Your task to perform on an android device: change the clock display to analog Image 0: 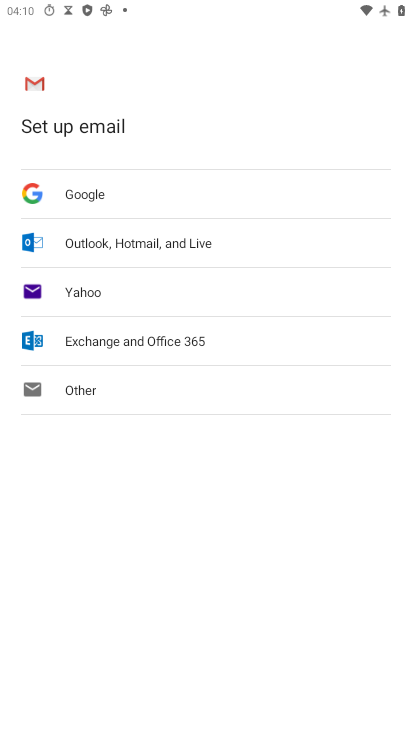
Step 0: press back button
Your task to perform on an android device: change the clock display to analog Image 1: 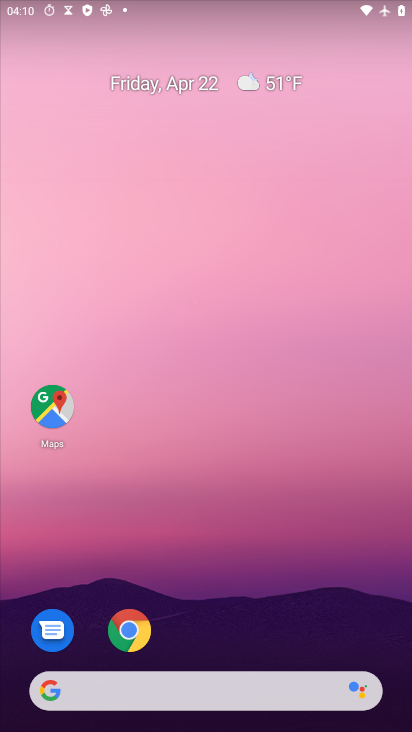
Step 1: drag from (245, 429) to (212, 58)
Your task to perform on an android device: change the clock display to analog Image 2: 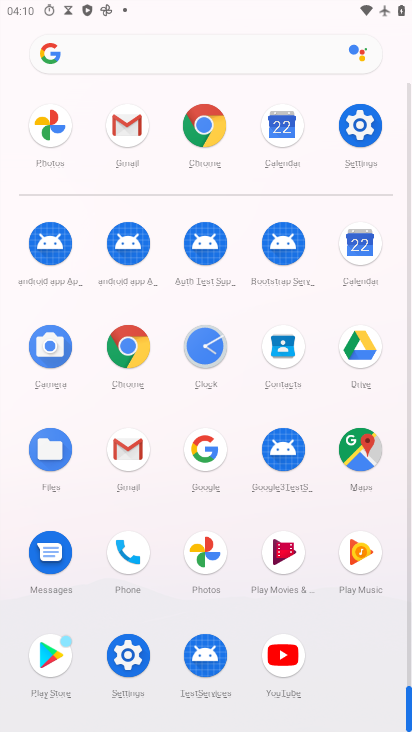
Step 2: drag from (1, 581) to (11, 308)
Your task to perform on an android device: change the clock display to analog Image 3: 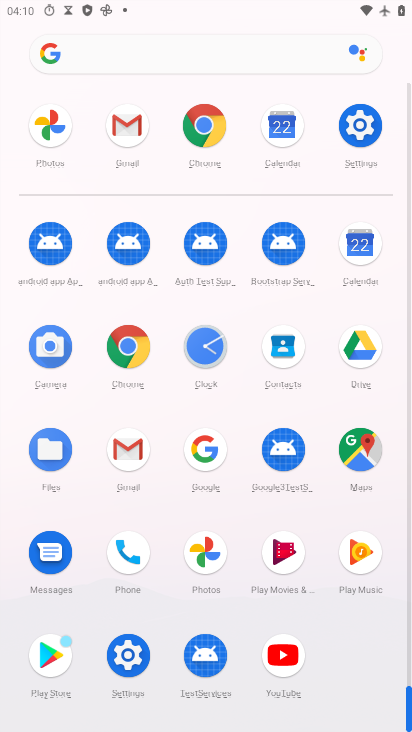
Step 3: click (206, 344)
Your task to perform on an android device: change the clock display to analog Image 4: 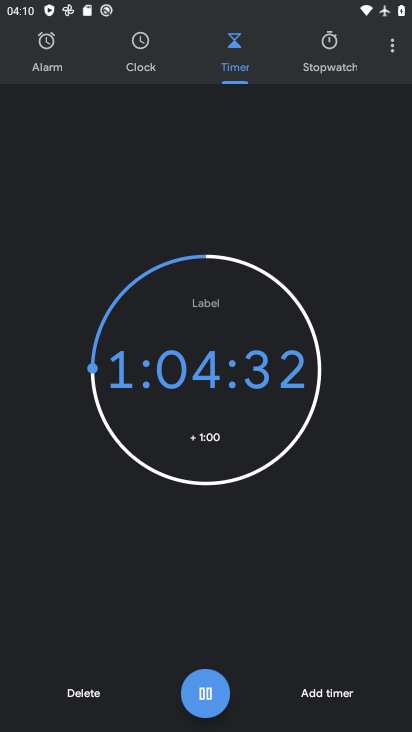
Step 4: click (385, 54)
Your task to perform on an android device: change the clock display to analog Image 5: 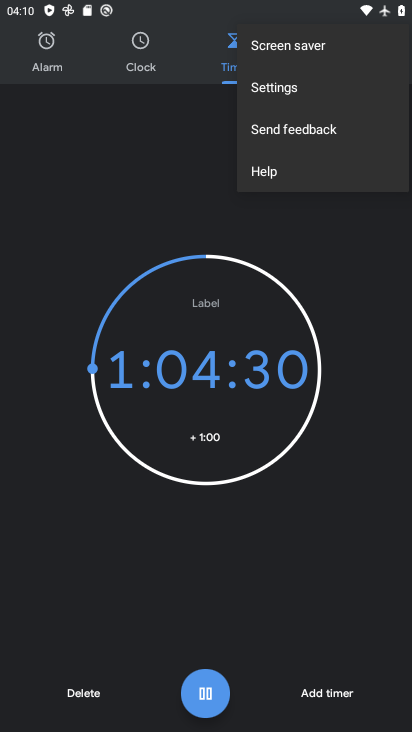
Step 5: click (307, 84)
Your task to perform on an android device: change the clock display to analog Image 6: 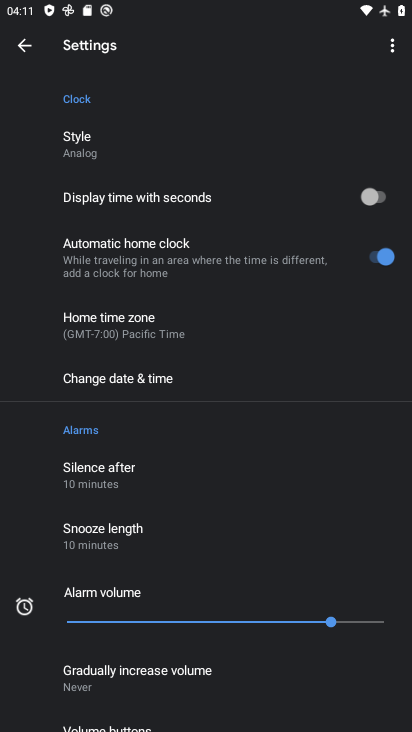
Step 6: click (122, 137)
Your task to perform on an android device: change the clock display to analog Image 7: 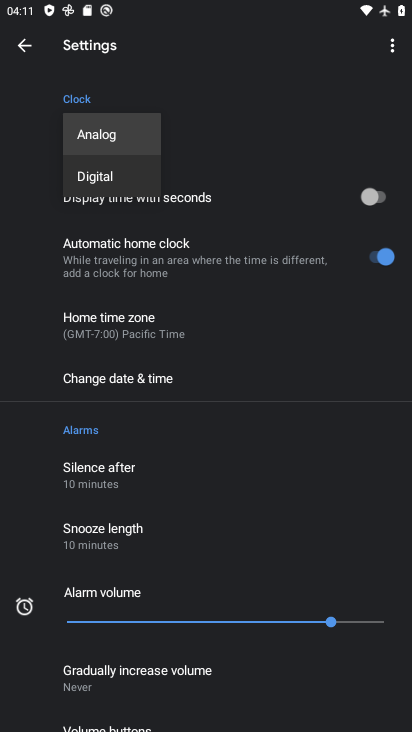
Step 7: click (115, 129)
Your task to perform on an android device: change the clock display to analog Image 8: 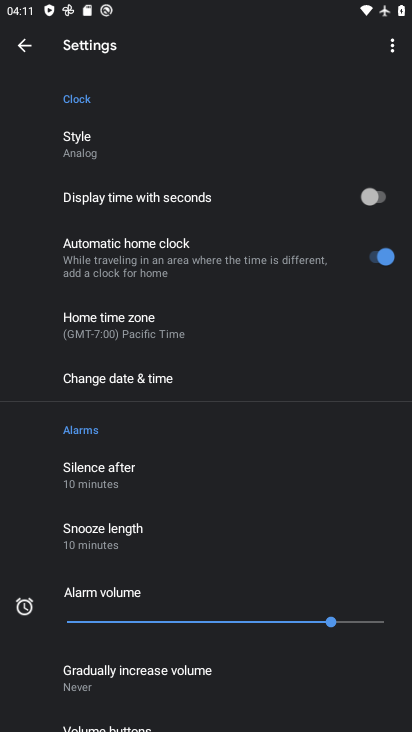
Step 8: task complete